Your task to perform on an android device: Show me popular videos on Youtube Image 0: 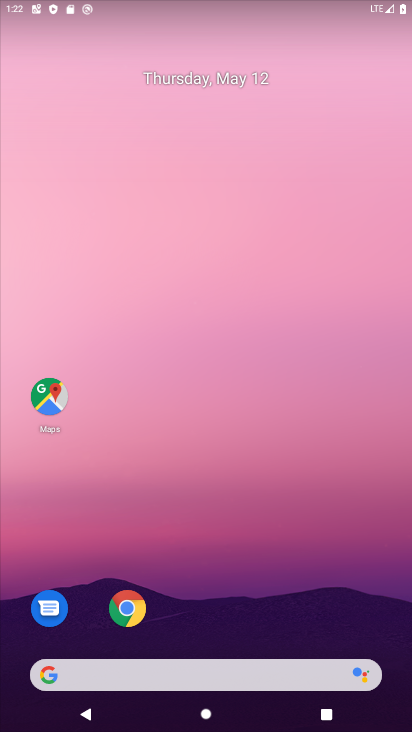
Step 0: drag from (291, 555) to (298, 40)
Your task to perform on an android device: Show me popular videos on Youtube Image 1: 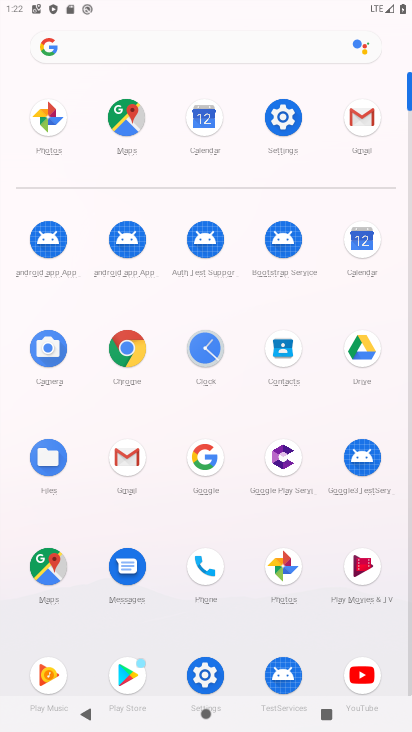
Step 1: click (361, 672)
Your task to perform on an android device: Show me popular videos on Youtube Image 2: 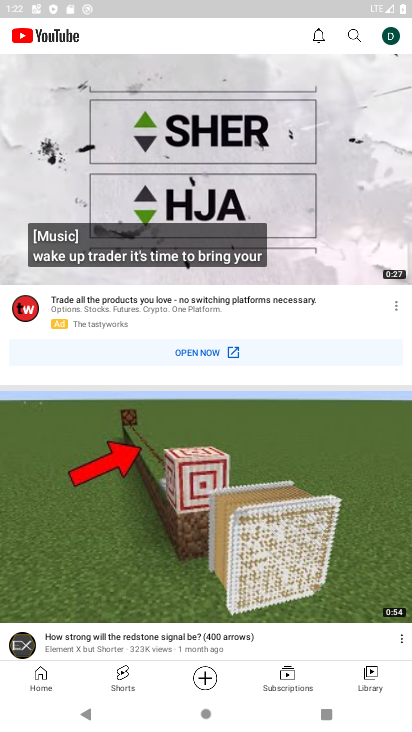
Step 2: click (41, 679)
Your task to perform on an android device: Show me popular videos on Youtube Image 3: 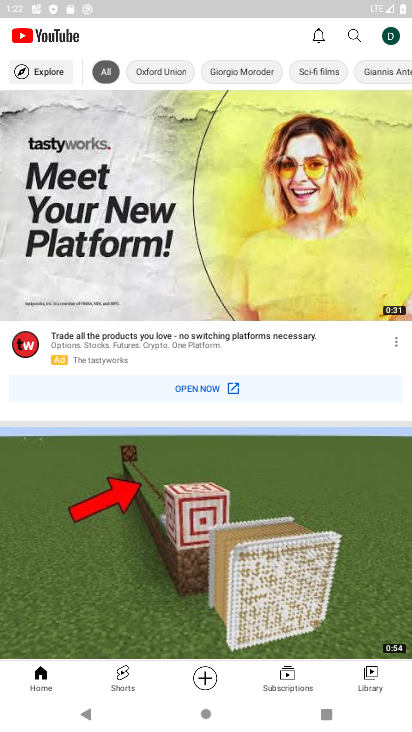
Step 3: task complete